Your task to perform on an android device: Open Reddit.com Image 0: 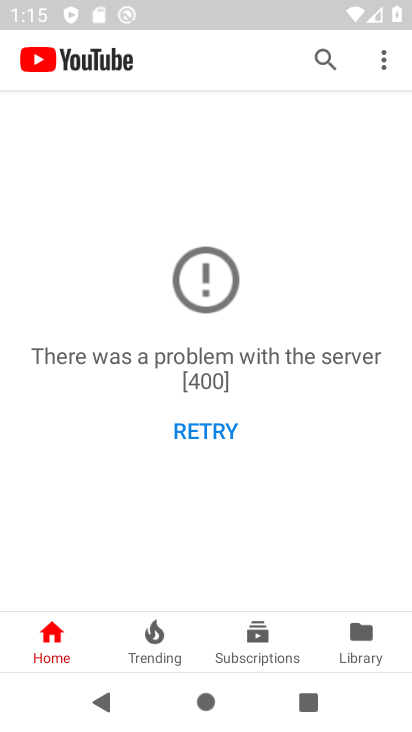
Step 0: press home button
Your task to perform on an android device: Open Reddit.com Image 1: 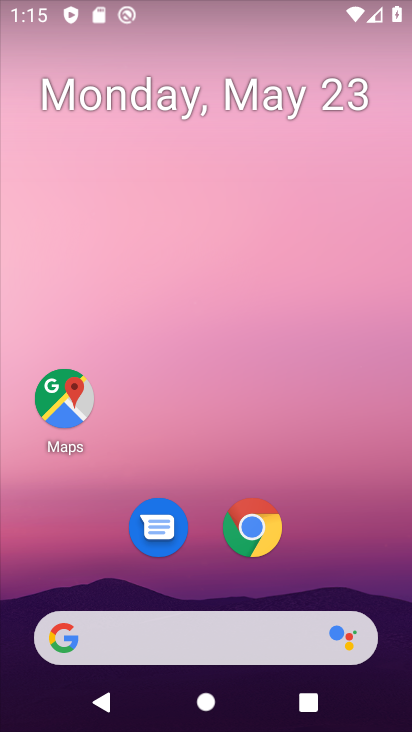
Step 1: click (285, 513)
Your task to perform on an android device: Open Reddit.com Image 2: 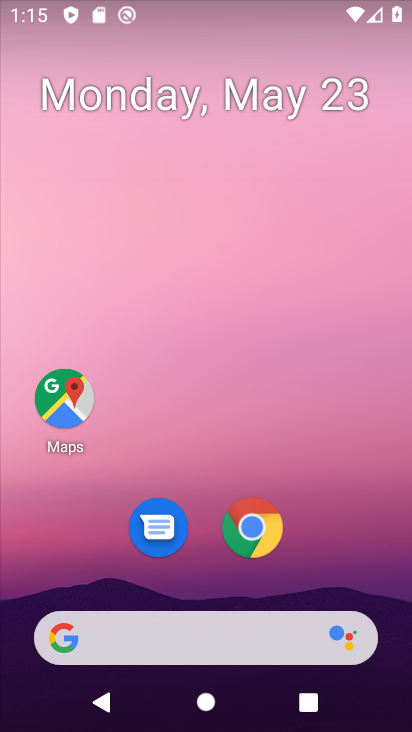
Step 2: click (250, 523)
Your task to perform on an android device: Open Reddit.com Image 3: 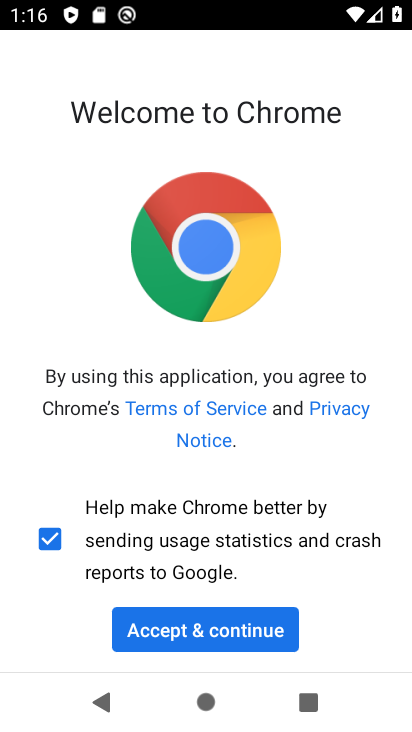
Step 3: click (228, 645)
Your task to perform on an android device: Open Reddit.com Image 4: 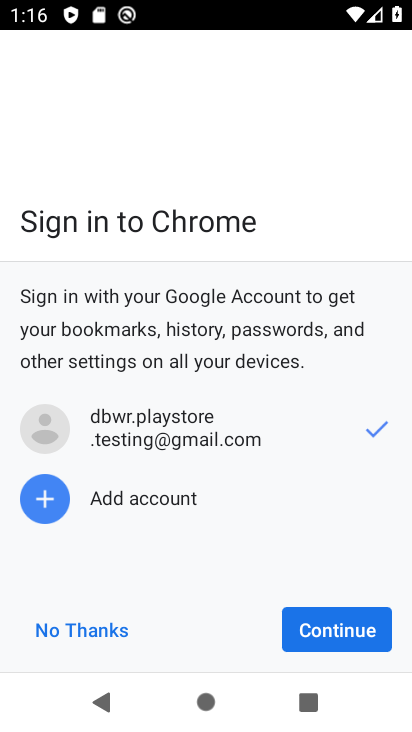
Step 4: click (336, 635)
Your task to perform on an android device: Open Reddit.com Image 5: 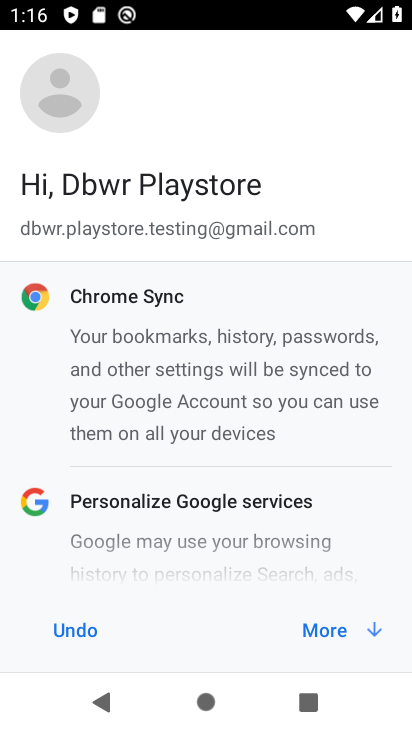
Step 5: click (334, 634)
Your task to perform on an android device: Open Reddit.com Image 6: 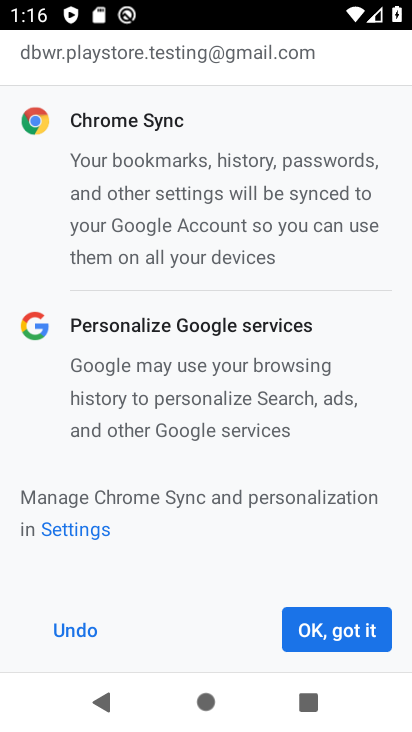
Step 6: click (320, 638)
Your task to perform on an android device: Open Reddit.com Image 7: 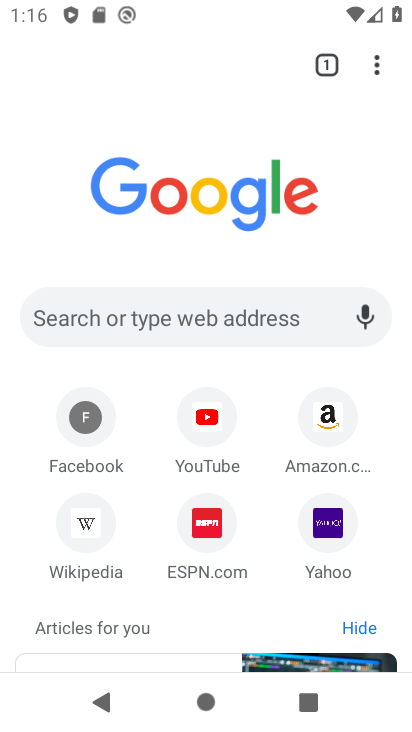
Step 7: click (156, 326)
Your task to perform on an android device: Open Reddit.com Image 8: 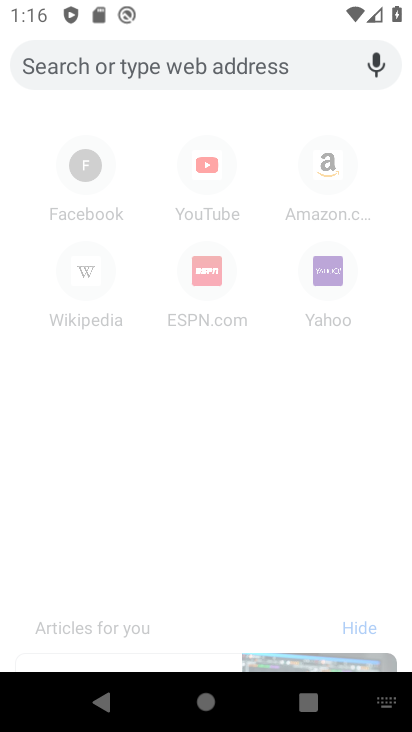
Step 8: type "reddit"
Your task to perform on an android device: Open Reddit.com Image 9: 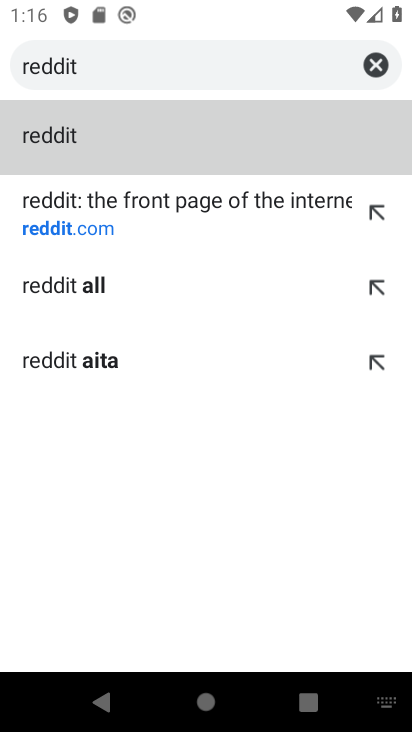
Step 9: click (130, 225)
Your task to perform on an android device: Open Reddit.com Image 10: 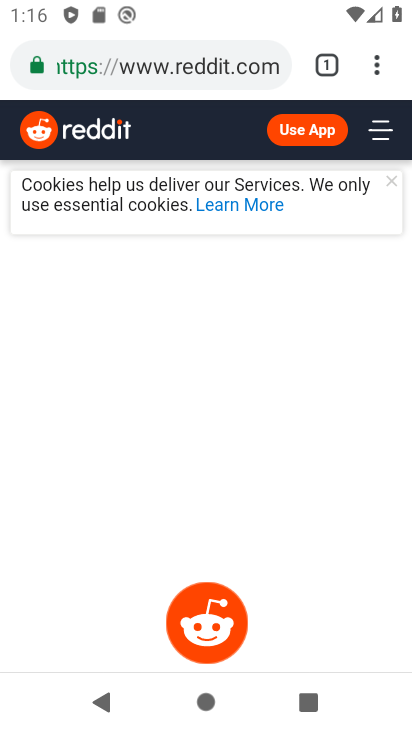
Step 10: task complete